Your task to perform on an android device: Search for the top rated book on goodreads. Image 0: 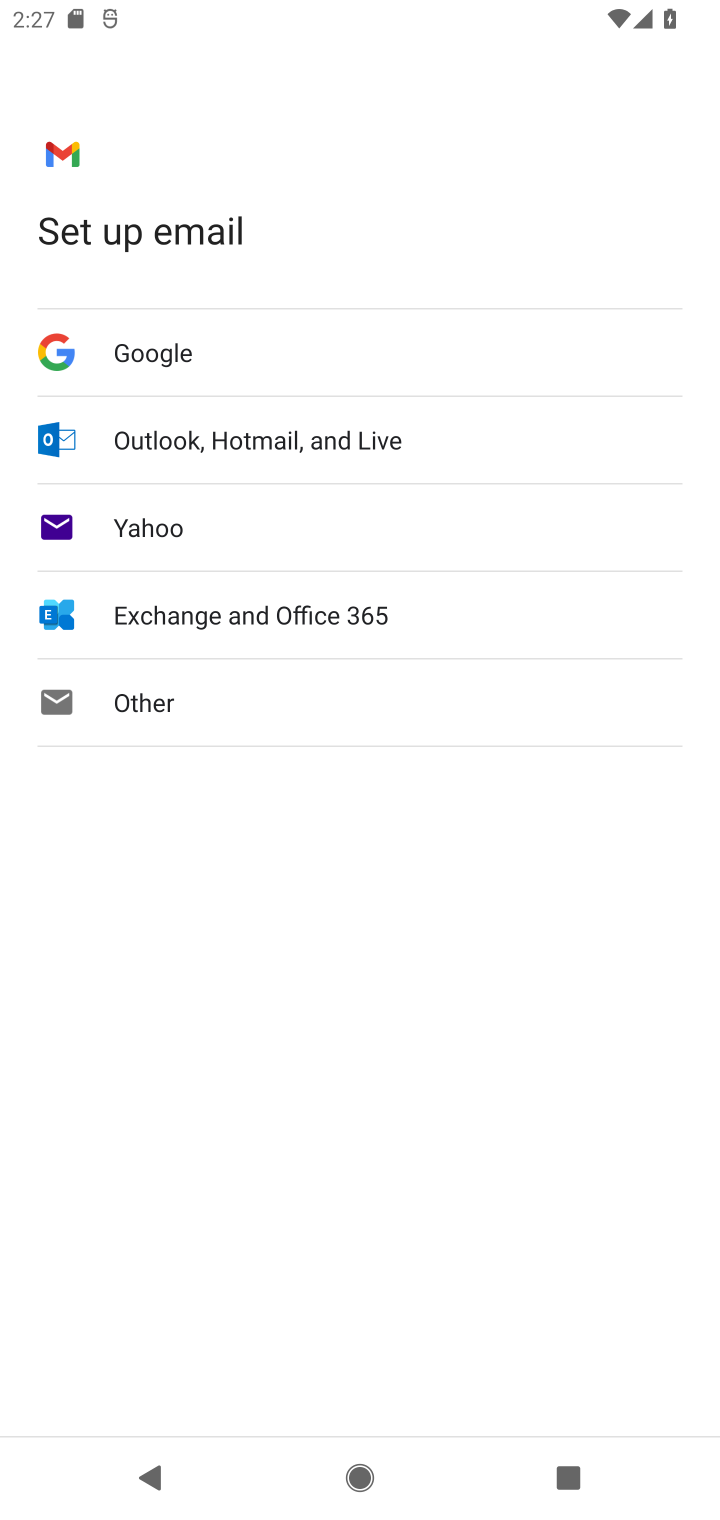
Step 0: press home button
Your task to perform on an android device: Search for the top rated book on goodreads. Image 1: 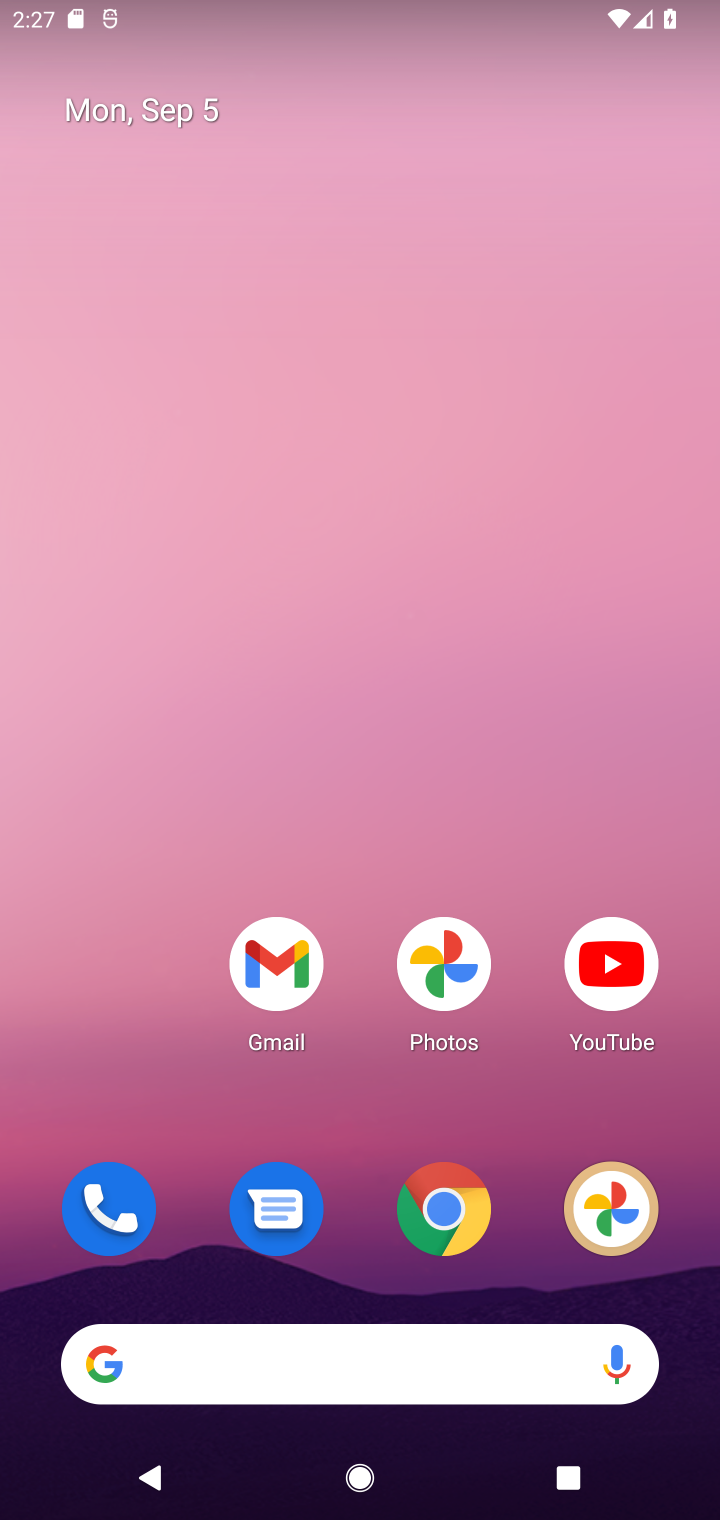
Step 1: drag from (326, 1329) to (282, 275)
Your task to perform on an android device: Search for the top rated book on goodreads. Image 2: 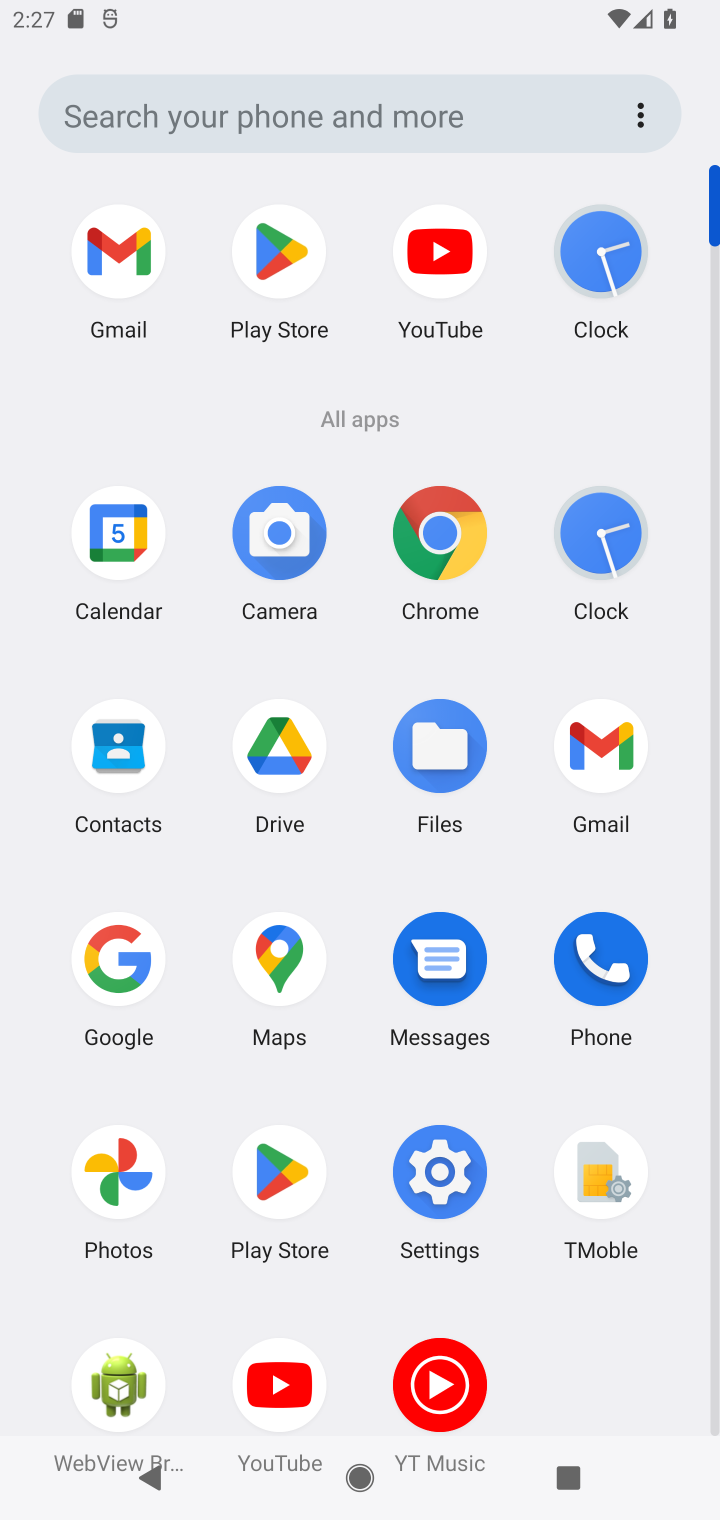
Step 2: click (102, 960)
Your task to perform on an android device: Search for the top rated book on goodreads. Image 3: 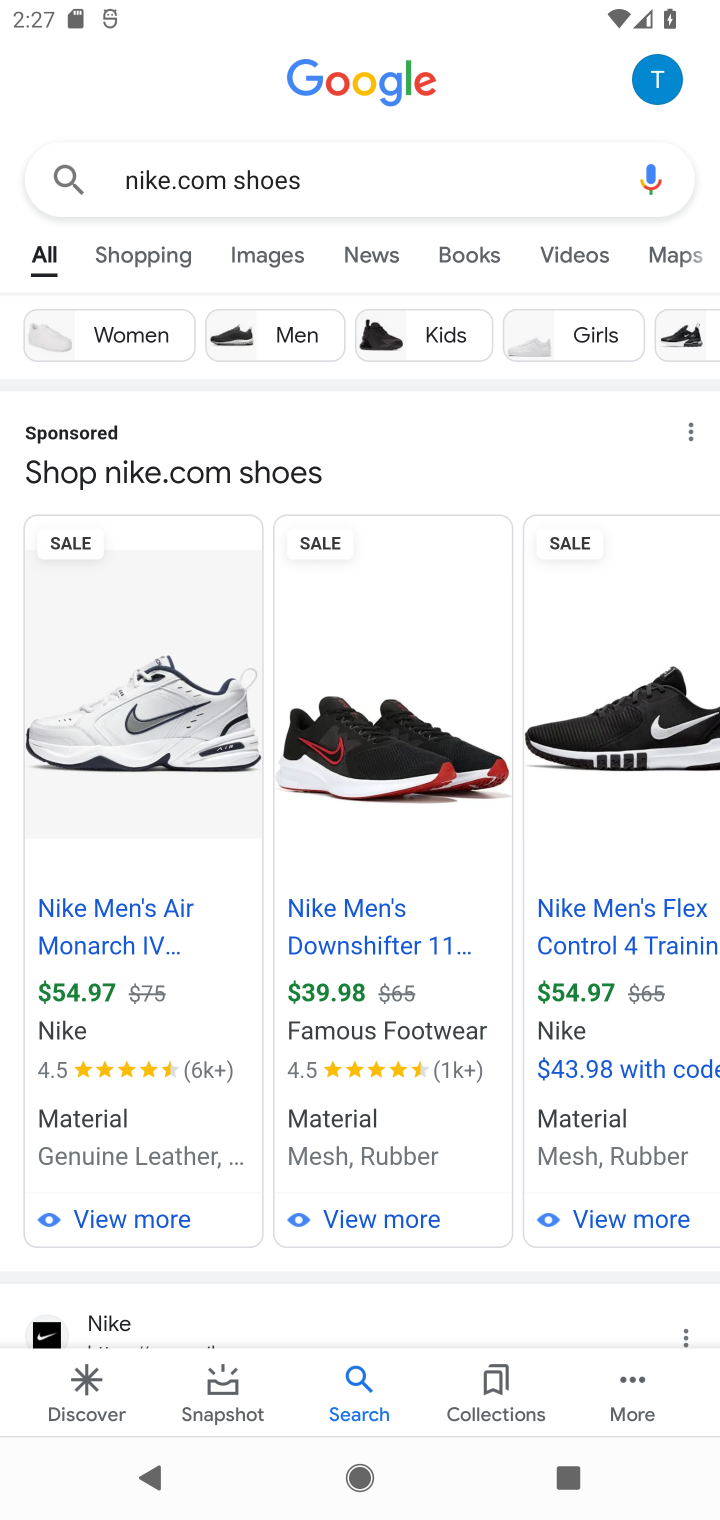
Step 3: click (269, 190)
Your task to perform on an android device: Search for the top rated book on goodreads. Image 4: 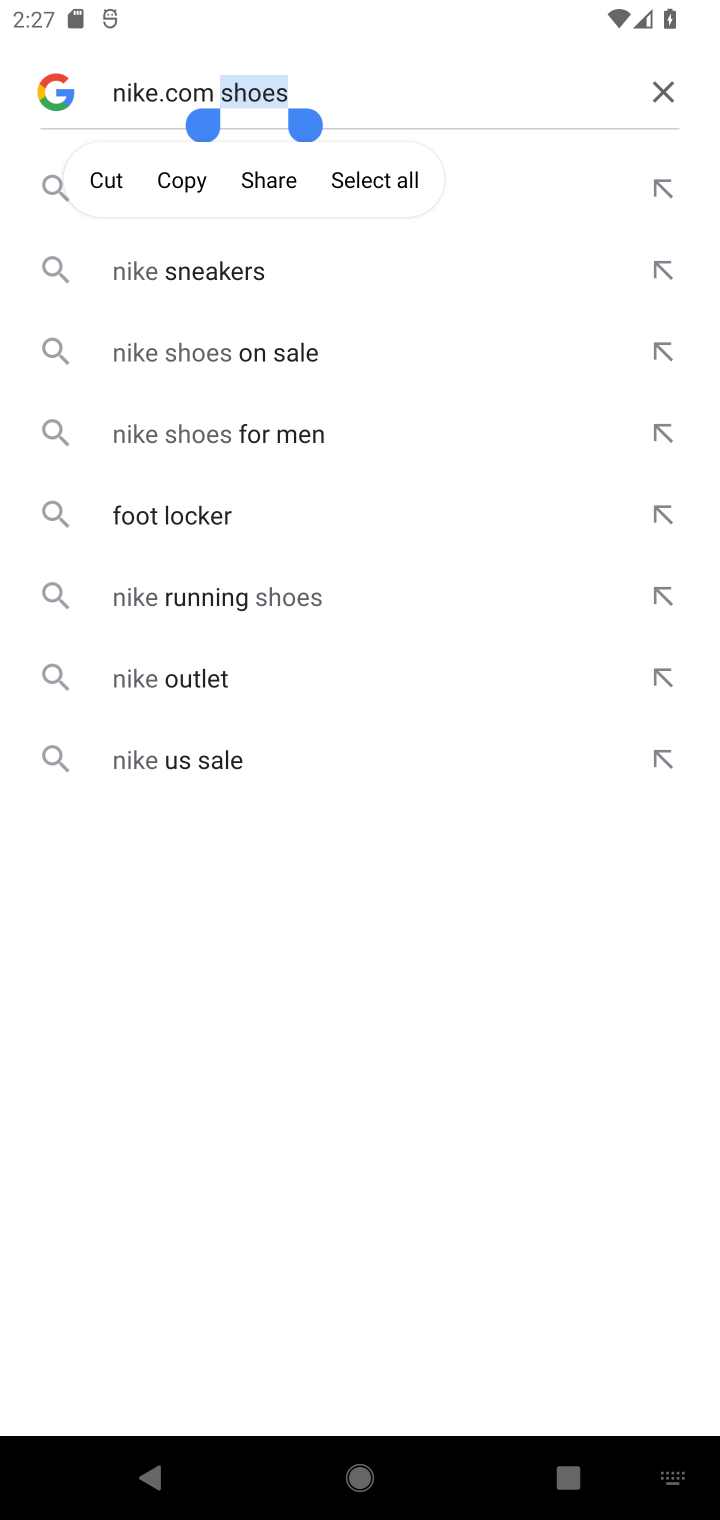
Step 4: click (652, 98)
Your task to perform on an android device: Search for the top rated book on goodreads. Image 5: 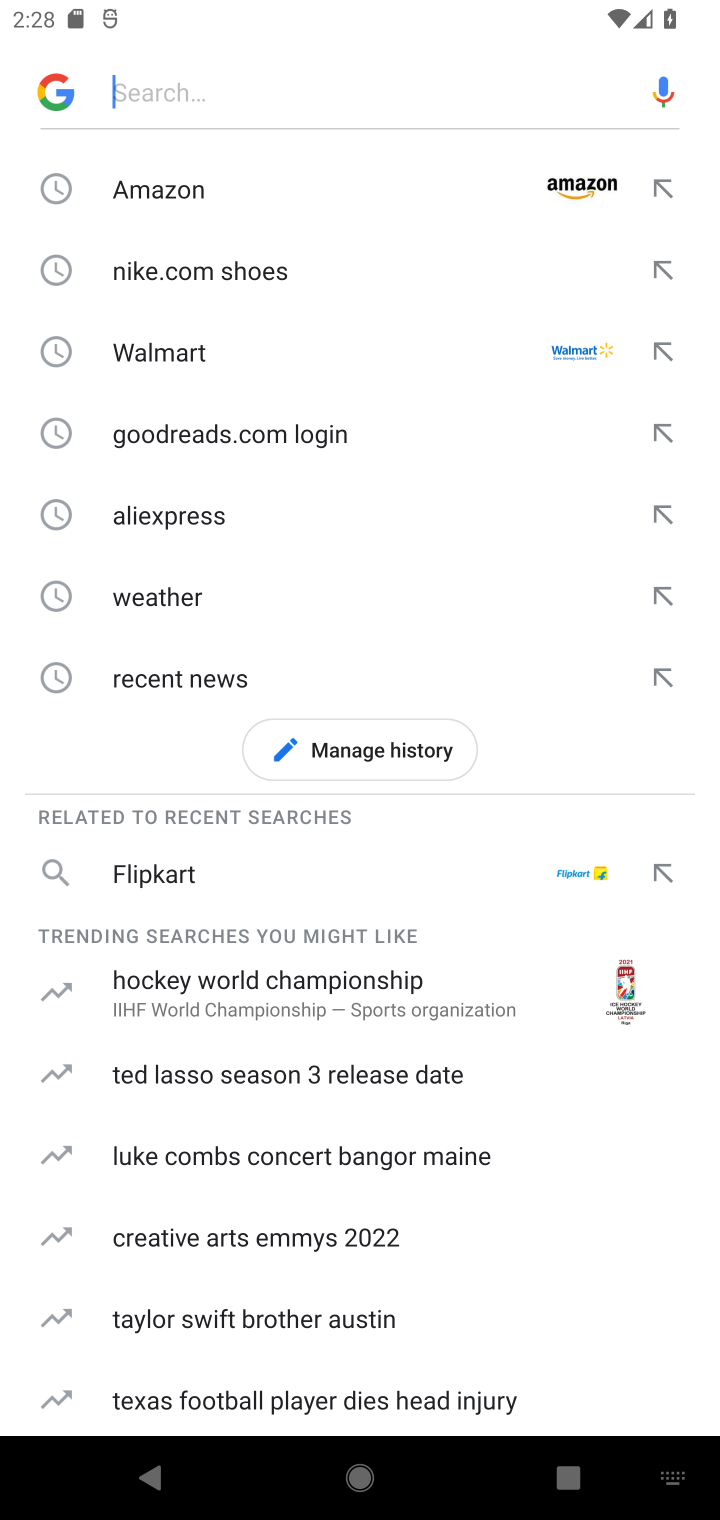
Step 5: type "goodreads"
Your task to perform on an android device: Search for the top rated book on goodreads. Image 6: 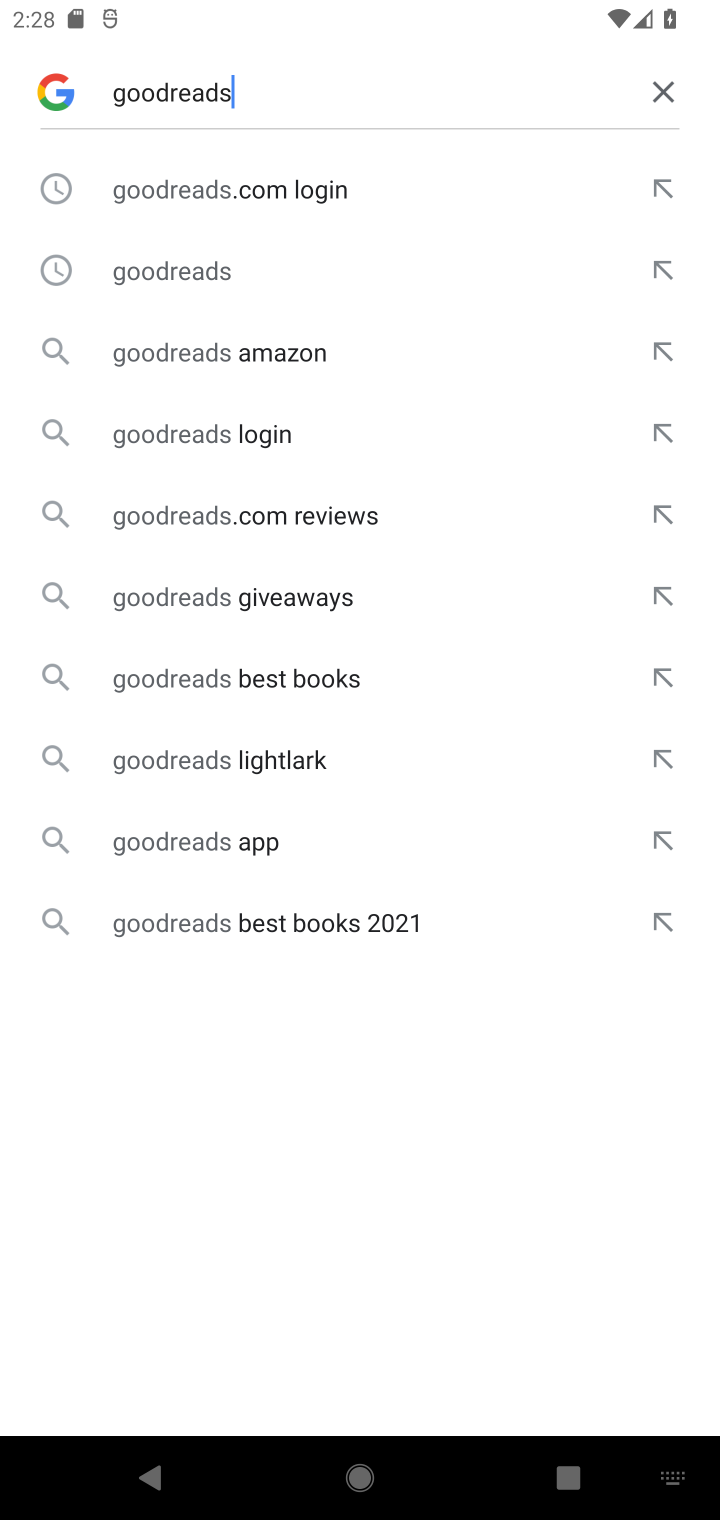
Step 6: click (177, 269)
Your task to perform on an android device: Search for the top rated book on goodreads. Image 7: 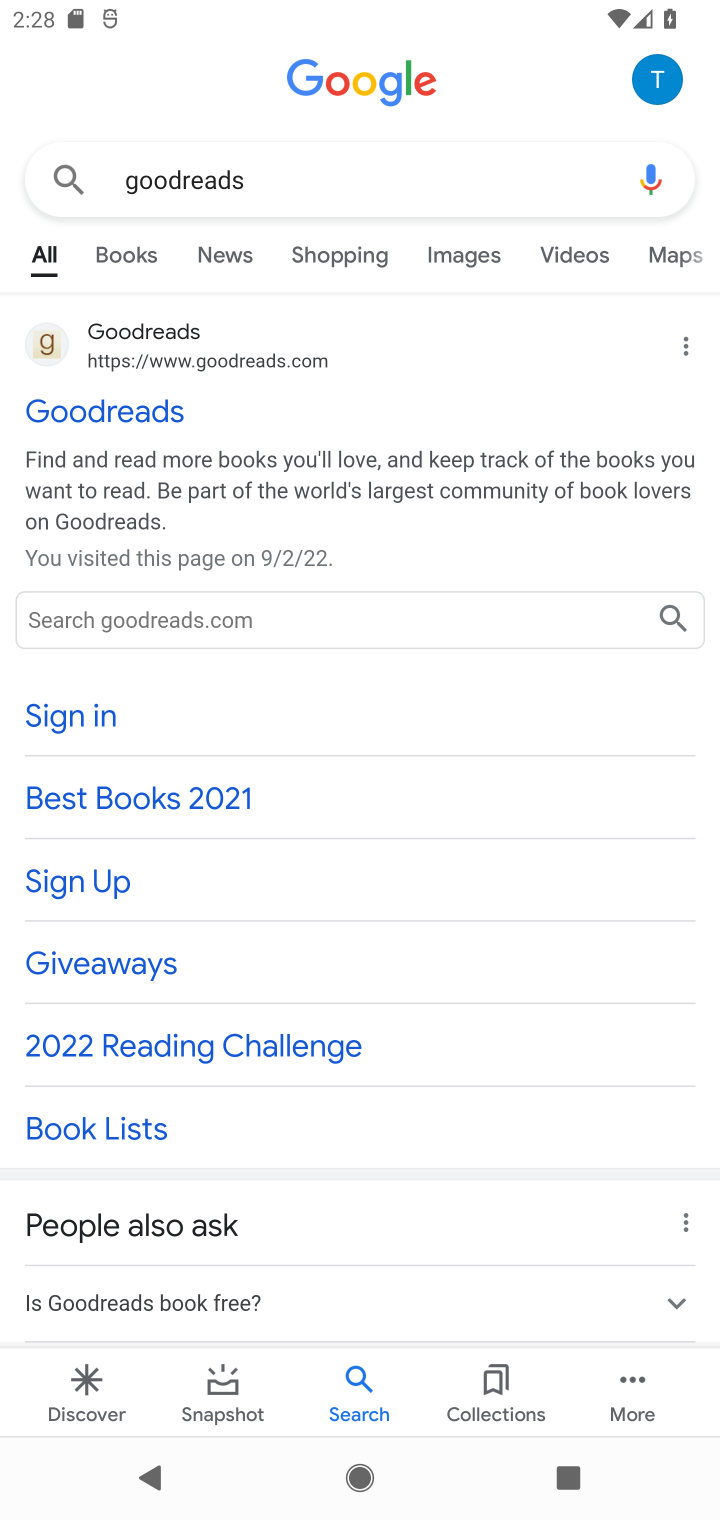
Step 7: click (71, 405)
Your task to perform on an android device: Search for the top rated book on goodreads. Image 8: 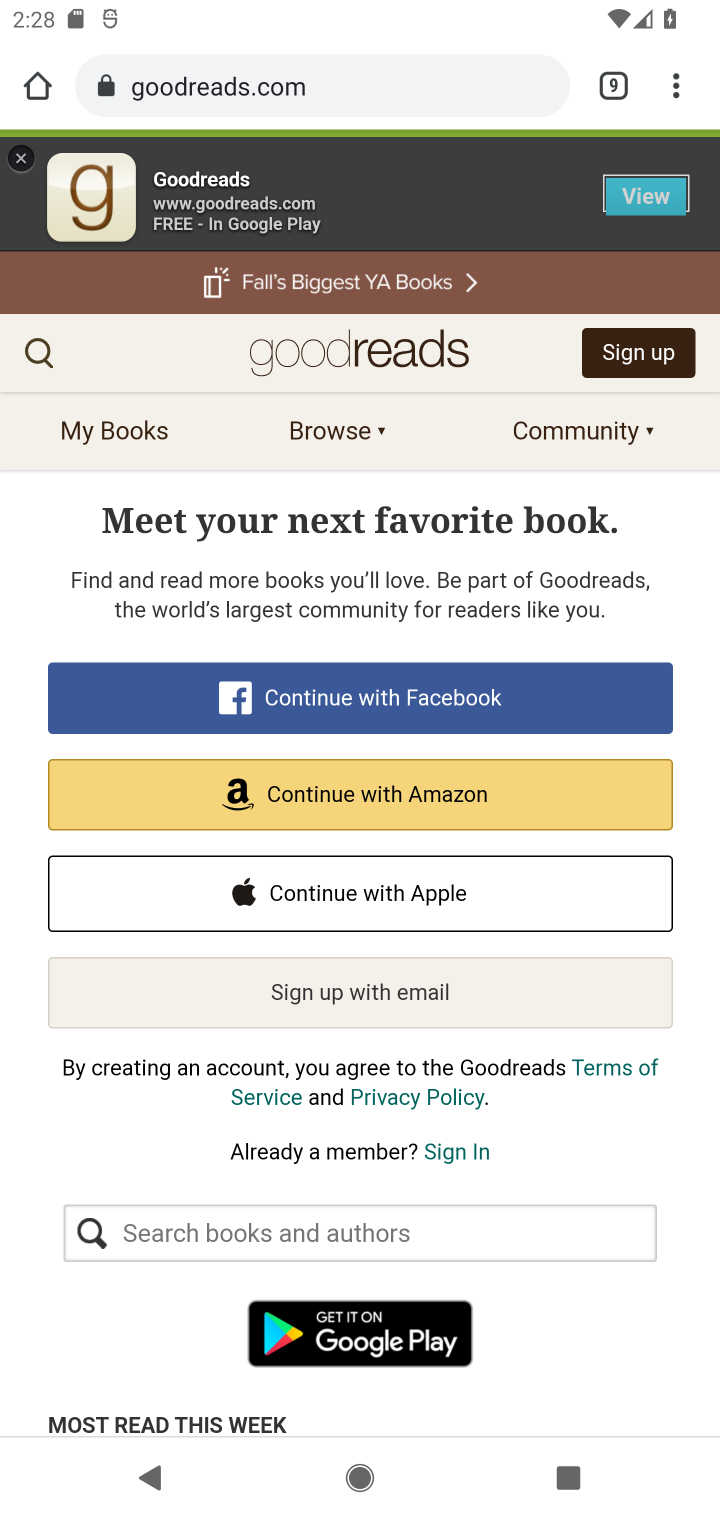
Step 8: click (44, 349)
Your task to perform on an android device: Search for the top rated book on goodreads. Image 9: 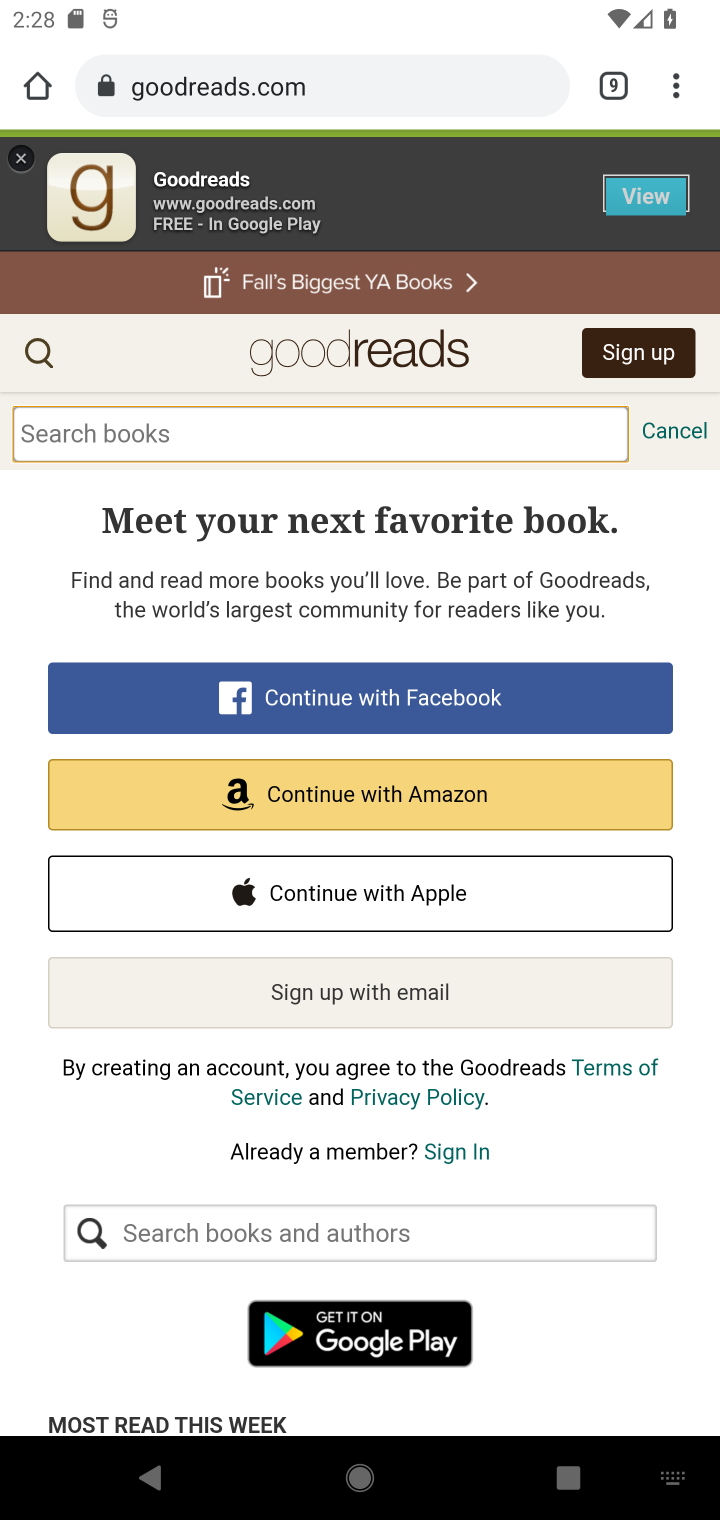
Step 9: type "top rated book"
Your task to perform on an android device: Search for the top rated book on goodreads. Image 10: 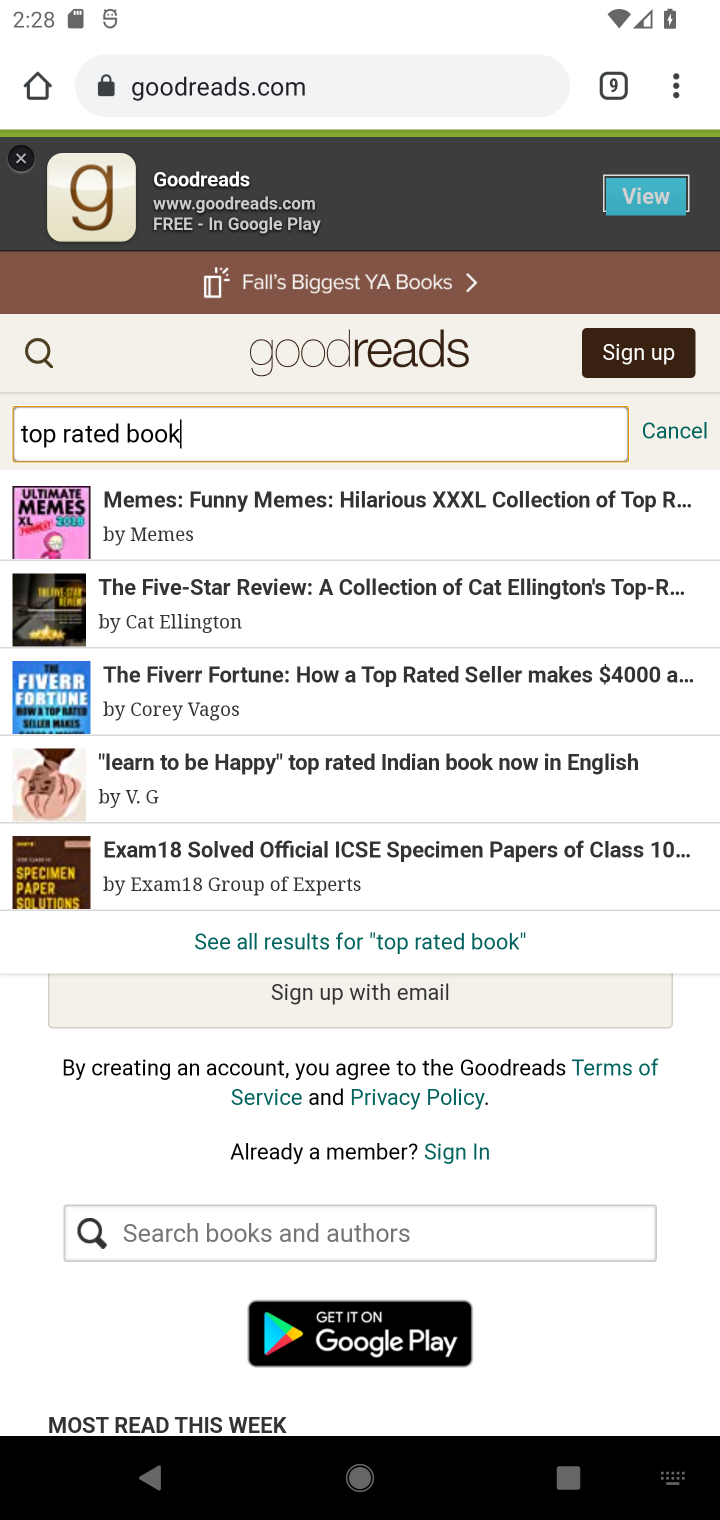
Step 10: click (36, 353)
Your task to perform on an android device: Search for the top rated book on goodreads. Image 11: 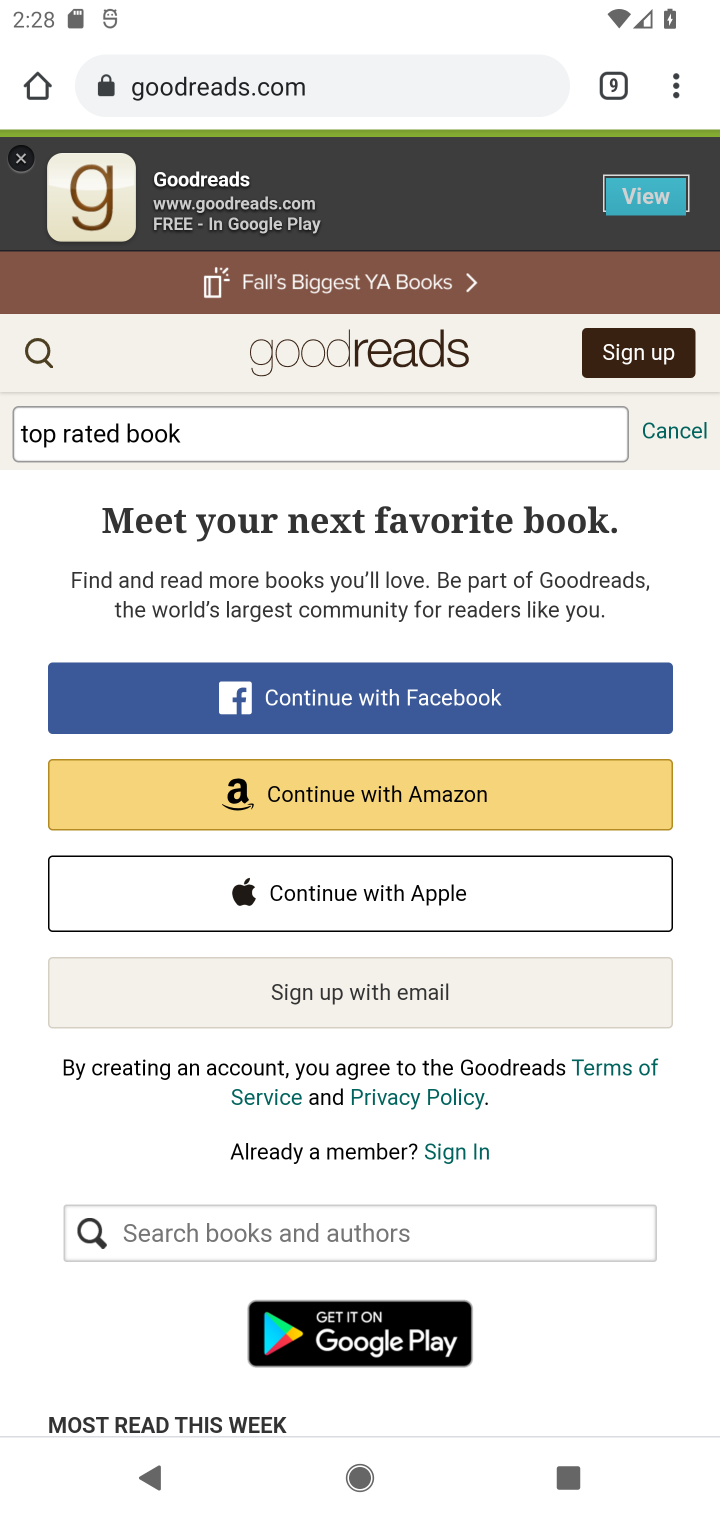
Step 11: click (220, 428)
Your task to perform on an android device: Search for the top rated book on goodreads. Image 12: 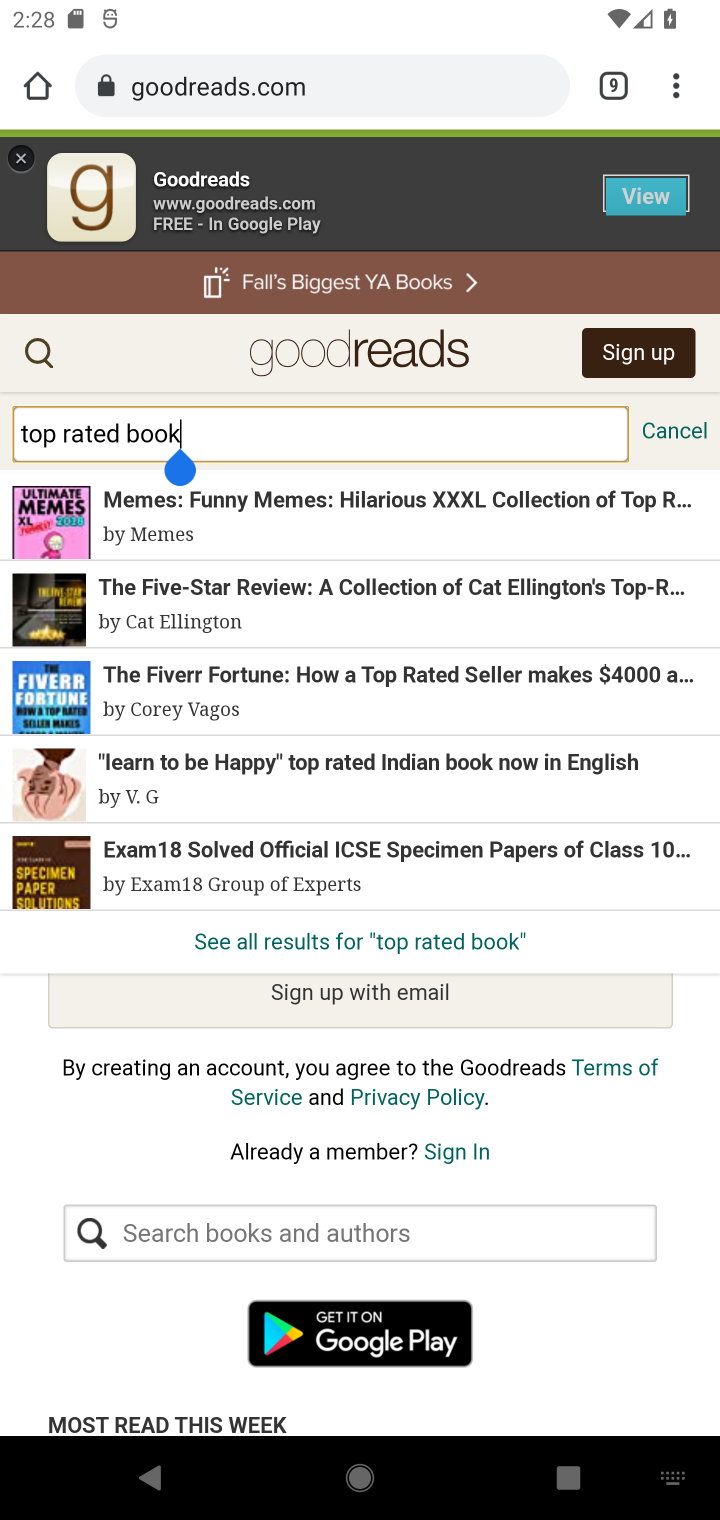
Step 12: click (332, 942)
Your task to perform on an android device: Search for the top rated book on goodreads. Image 13: 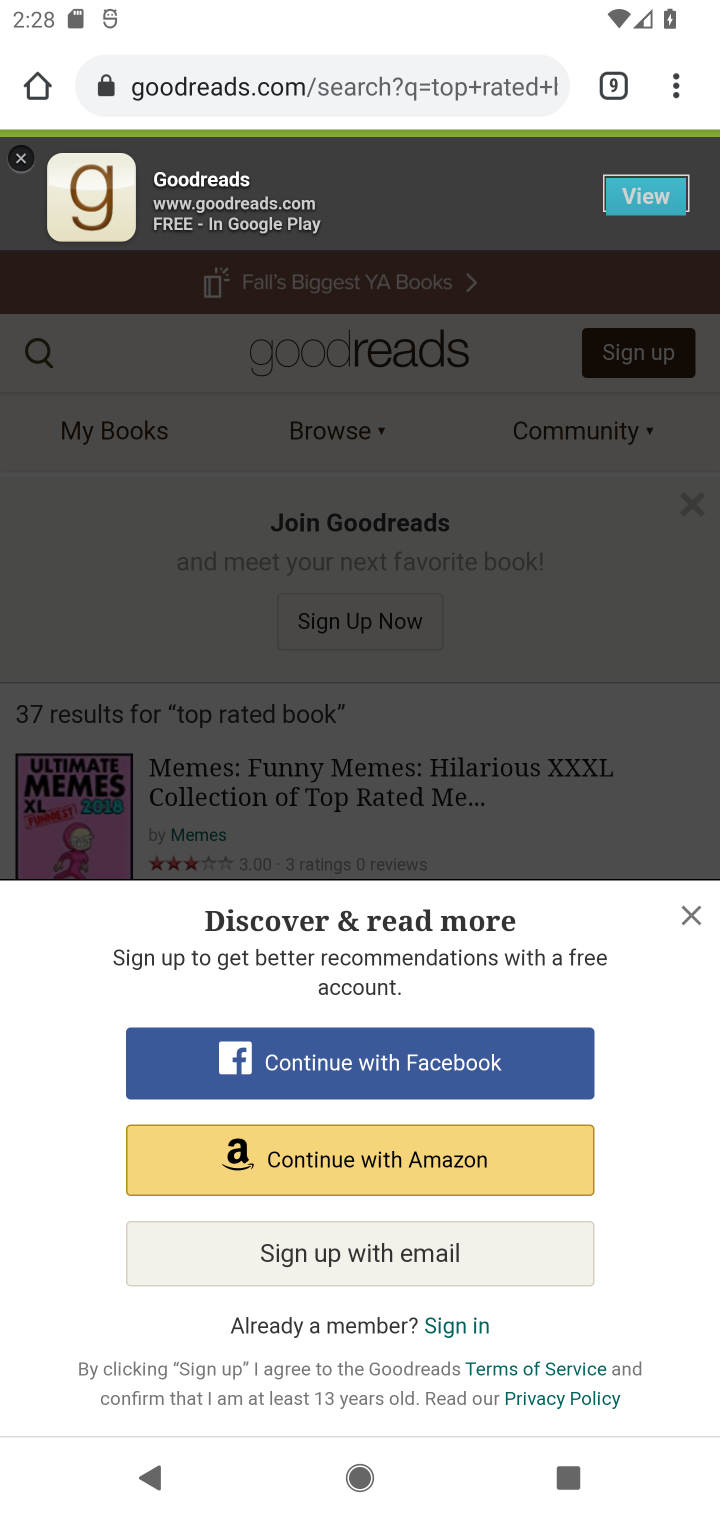
Step 13: click (689, 915)
Your task to perform on an android device: Search for the top rated book on goodreads. Image 14: 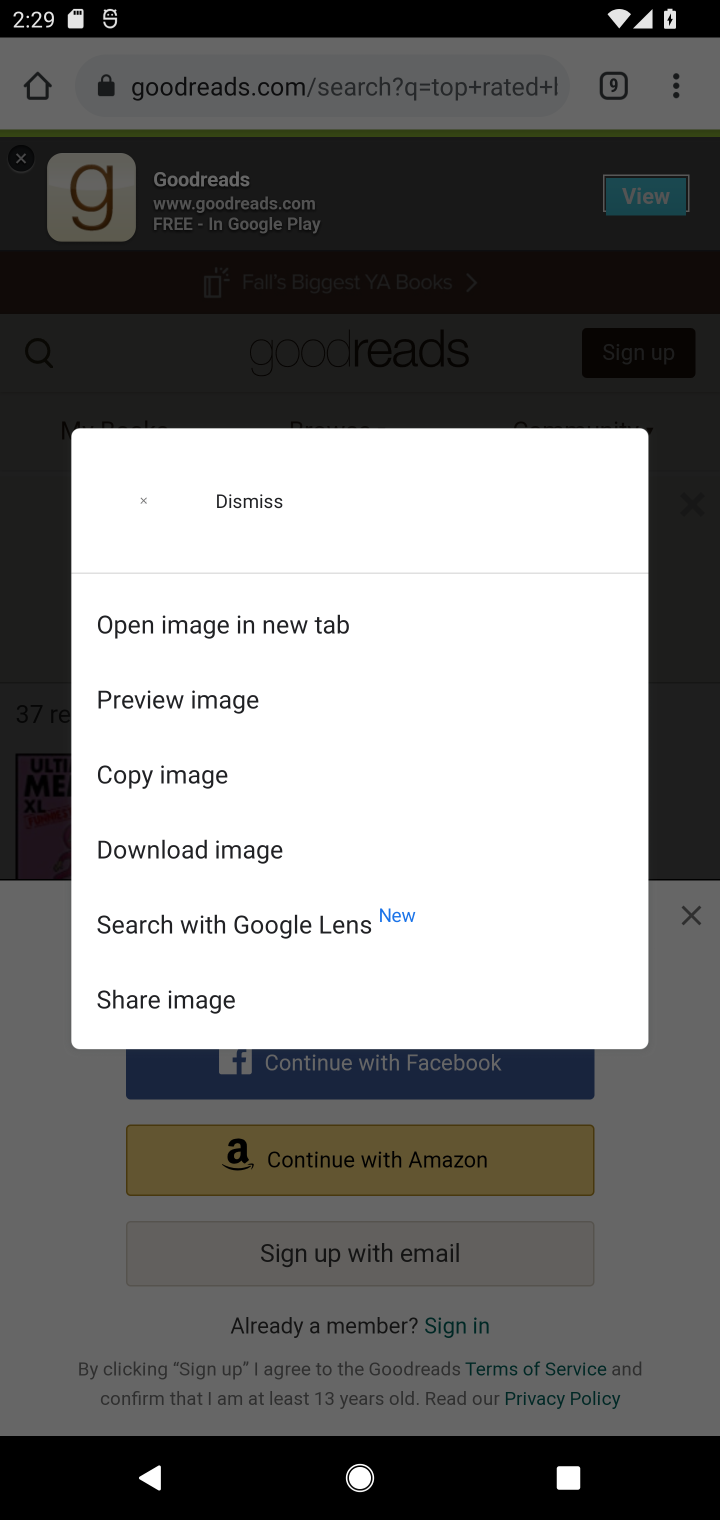
Step 14: click (4, 989)
Your task to perform on an android device: Search for the top rated book on goodreads. Image 15: 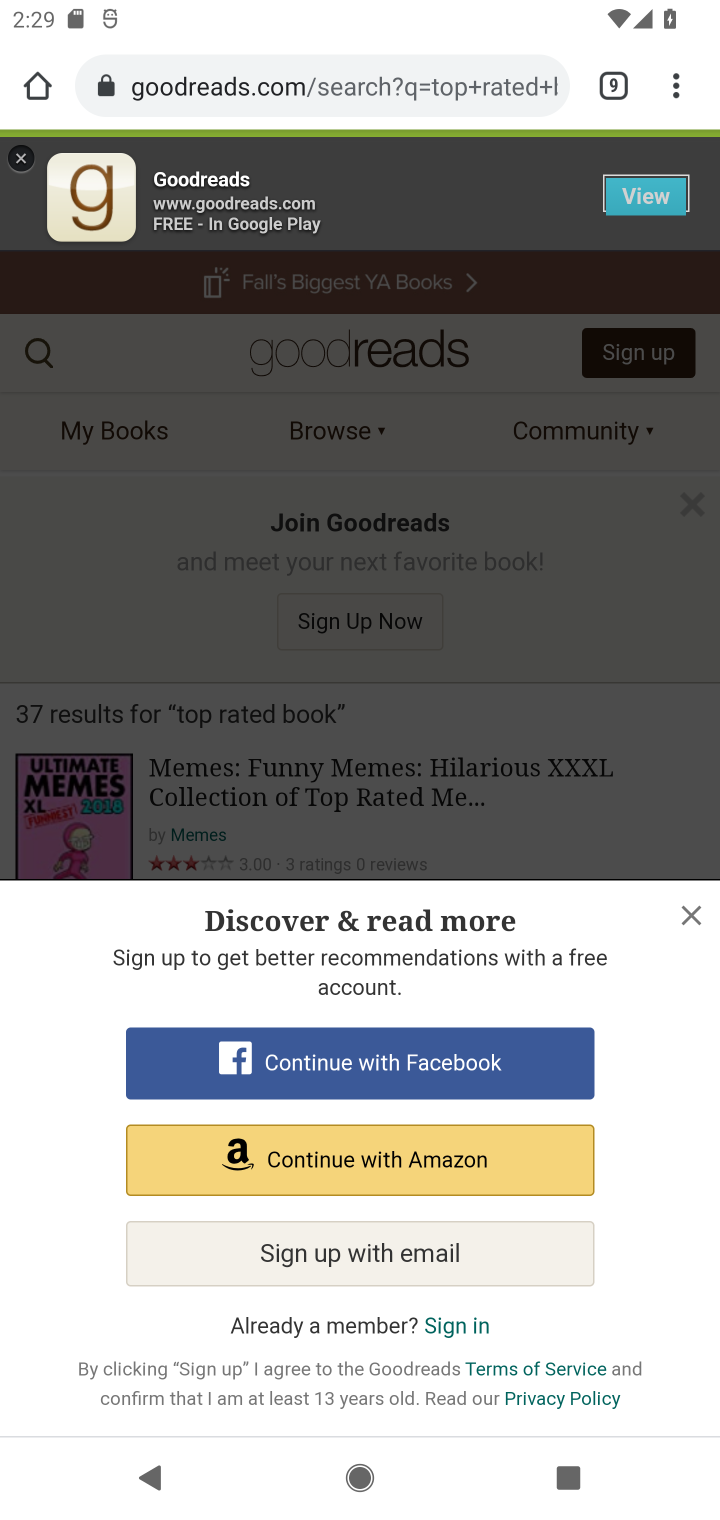
Step 15: click (700, 921)
Your task to perform on an android device: Search for the top rated book on goodreads. Image 16: 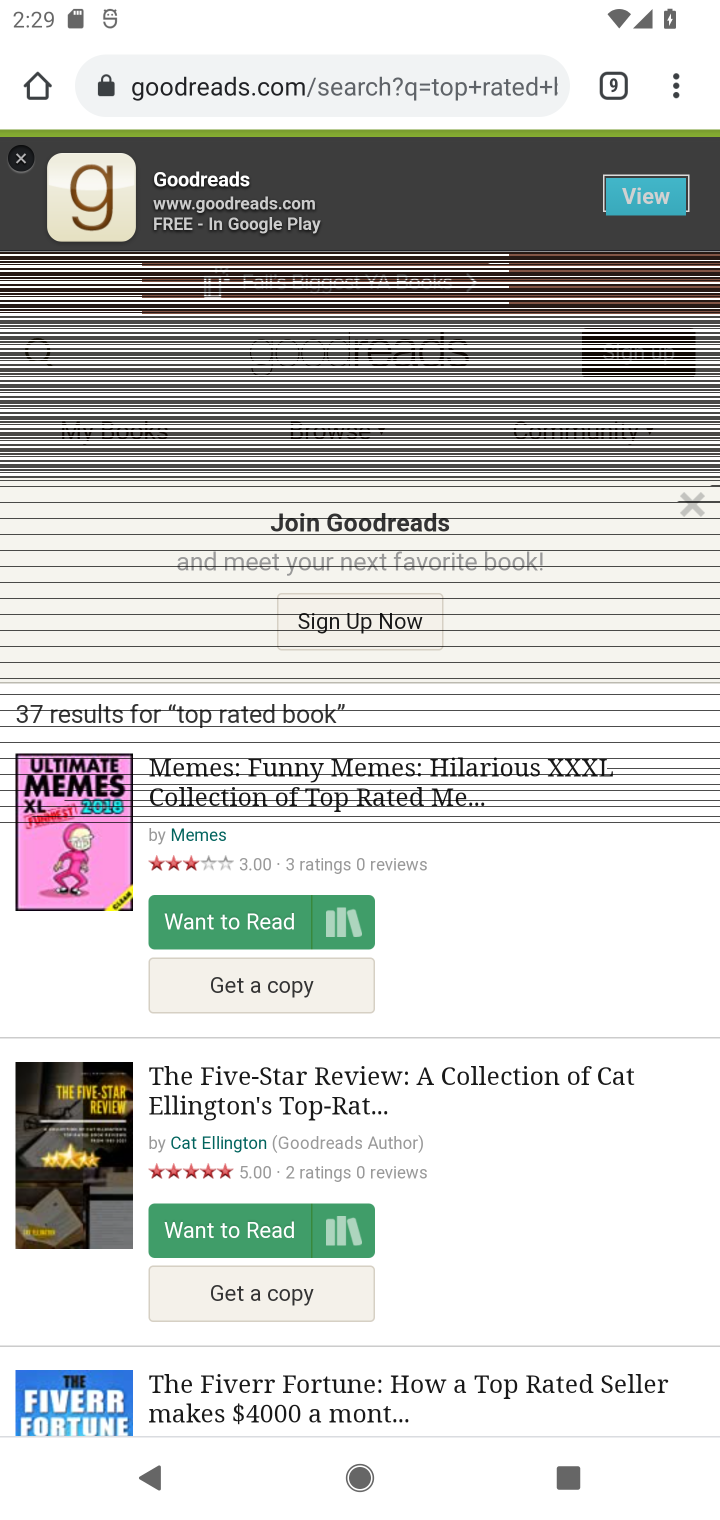
Step 16: task complete